Your task to perform on an android device: toggle translation in the chrome app Image 0: 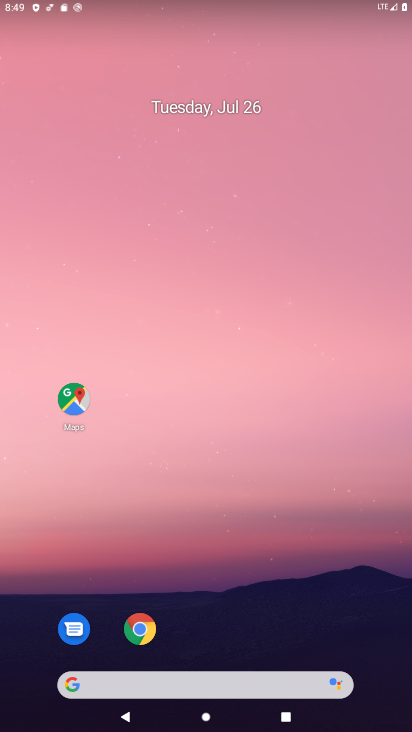
Step 0: drag from (223, 650) to (184, 17)
Your task to perform on an android device: toggle translation in the chrome app Image 1: 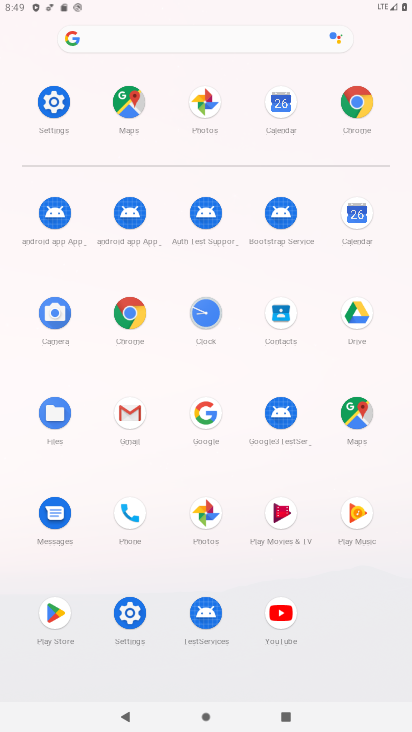
Step 1: click (356, 102)
Your task to perform on an android device: toggle translation in the chrome app Image 2: 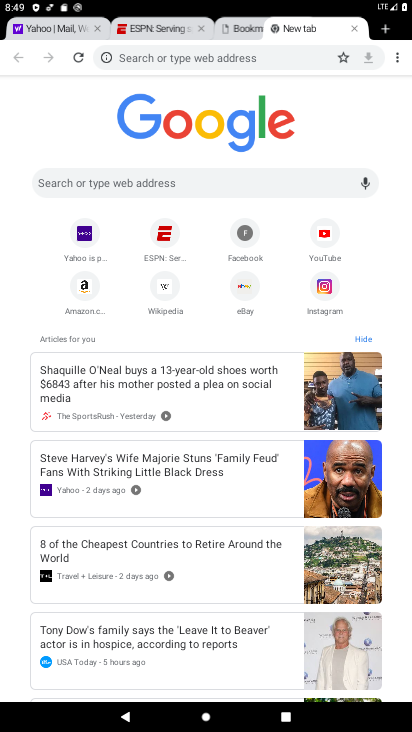
Step 2: drag from (395, 59) to (257, 265)
Your task to perform on an android device: toggle translation in the chrome app Image 3: 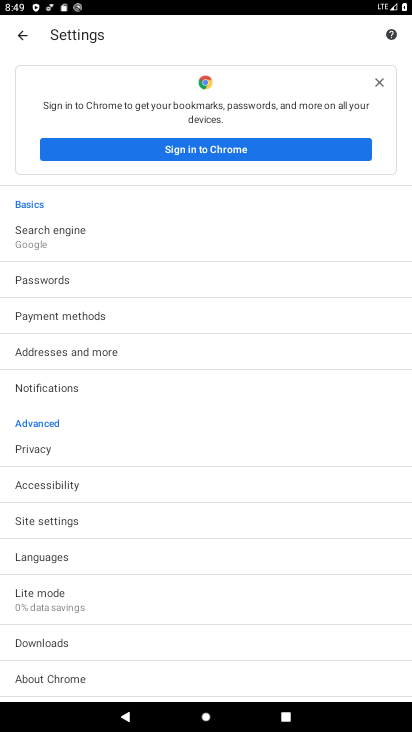
Step 3: click (47, 552)
Your task to perform on an android device: toggle translation in the chrome app Image 4: 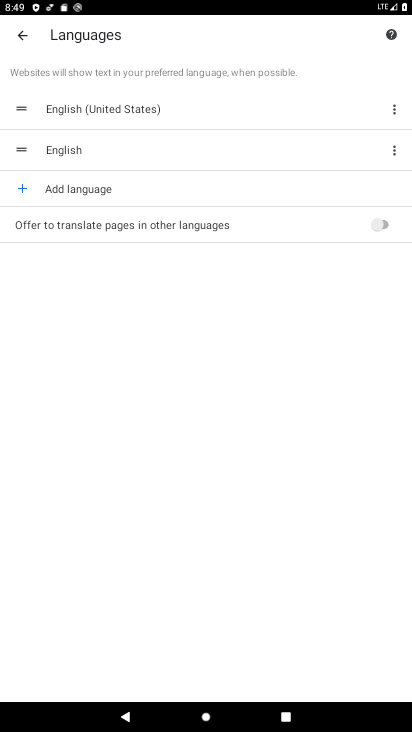
Step 4: click (389, 222)
Your task to perform on an android device: toggle translation in the chrome app Image 5: 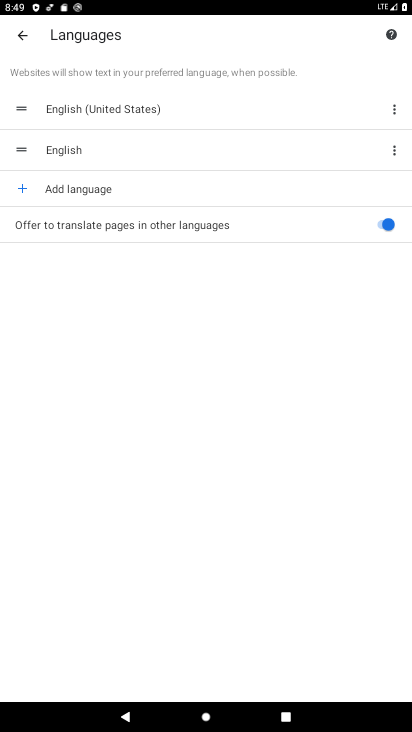
Step 5: task complete